Your task to perform on an android device: search for starred emails in the gmail app Image 0: 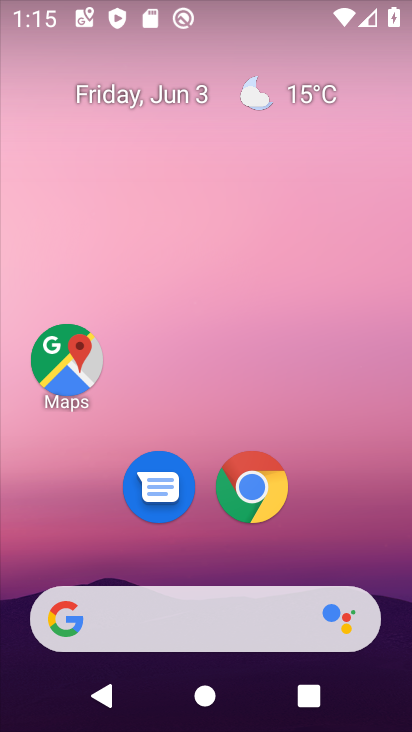
Step 0: press home button
Your task to perform on an android device: search for starred emails in the gmail app Image 1: 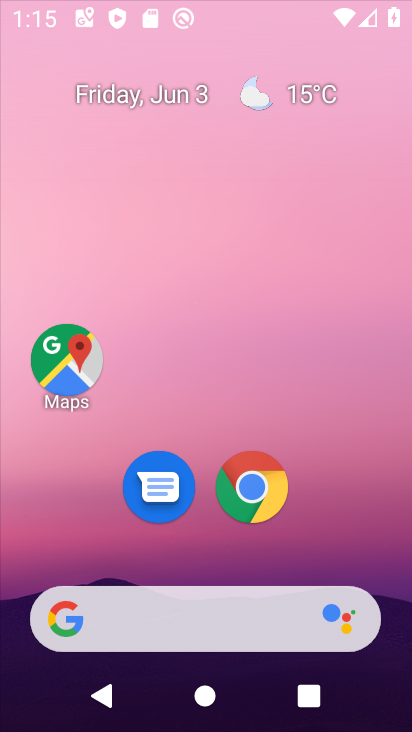
Step 1: click (203, 561)
Your task to perform on an android device: search for starred emails in the gmail app Image 2: 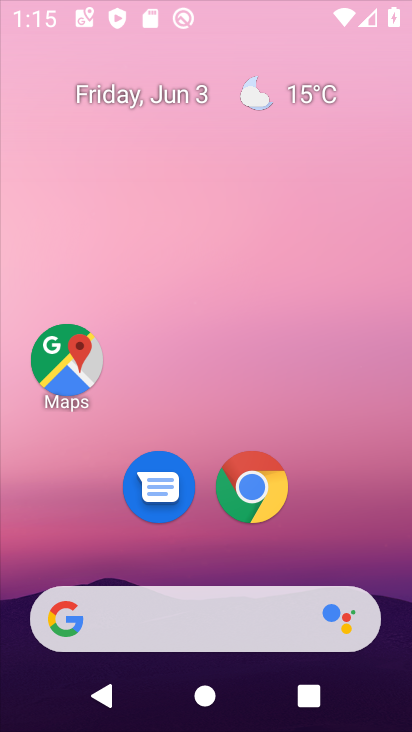
Step 2: click (202, 433)
Your task to perform on an android device: search for starred emails in the gmail app Image 3: 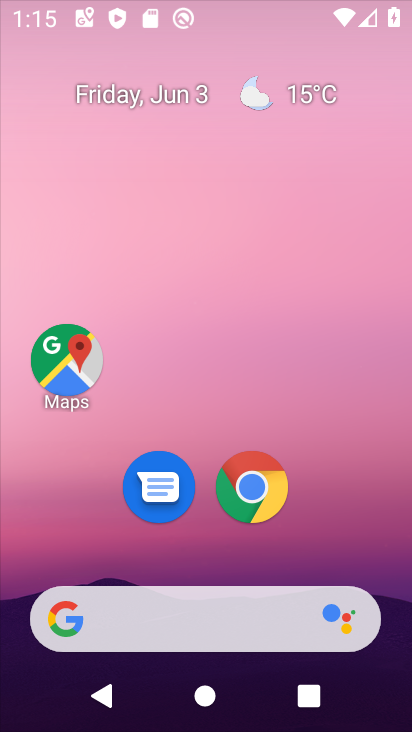
Step 3: drag from (202, 378) to (215, 130)
Your task to perform on an android device: search for starred emails in the gmail app Image 4: 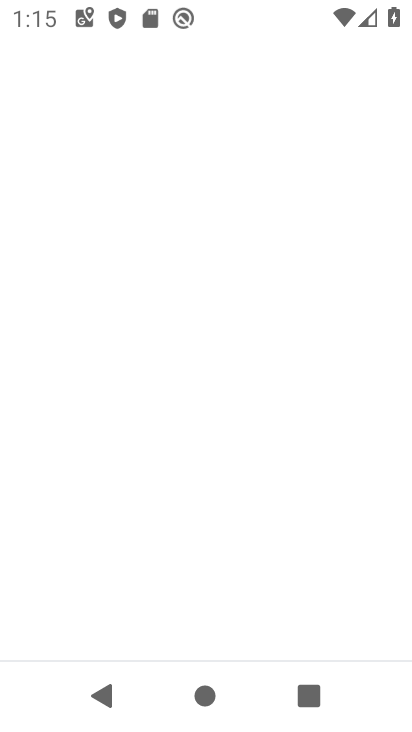
Step 4: press home button
Your task to perform on an android device: search for starred emails in the gmail app Image 5: 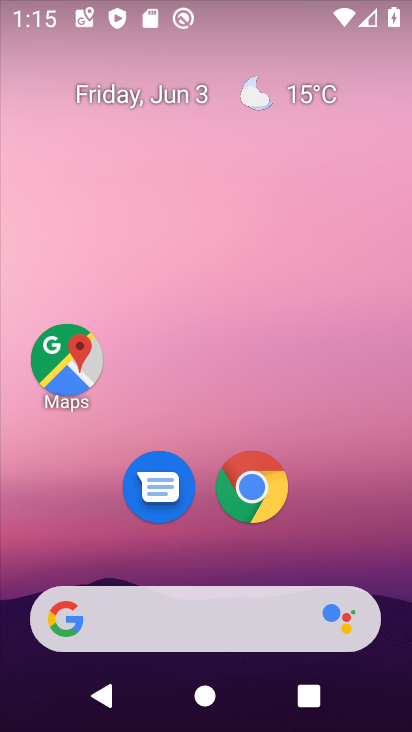
Step 5: drag from (315, 561) to (346, 79)
Your task to perform on an android device: search for starred emails in the gmail app Image 6: 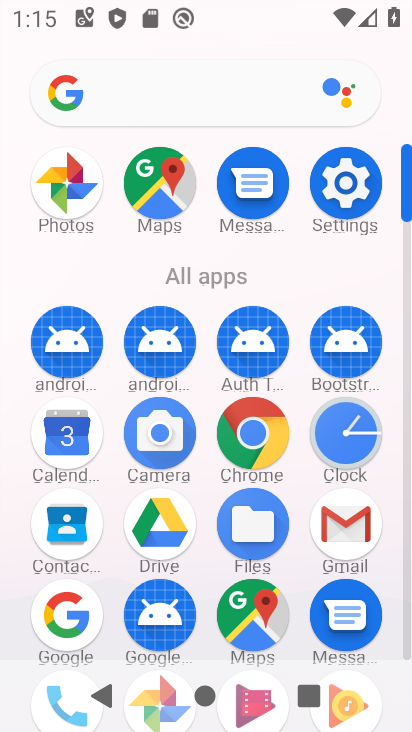
Step 6: click (342, 512)
Your task to perform on an android device: search for starred emails in the gmail app Image 7: 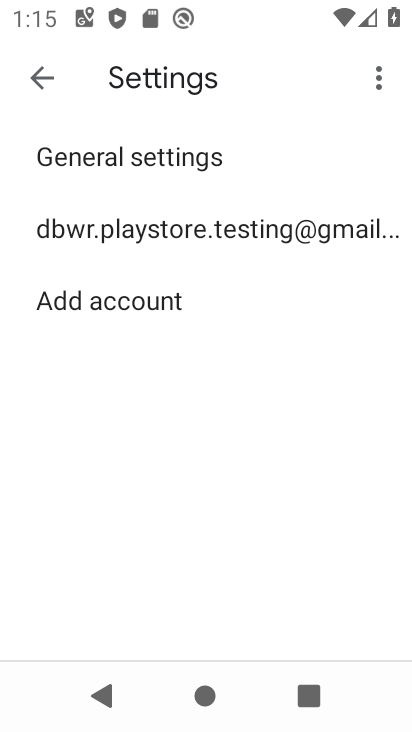
Step 7: click (47, 80)
Your task to perform on an android device: search for starred emails in the gmail app Image 8: 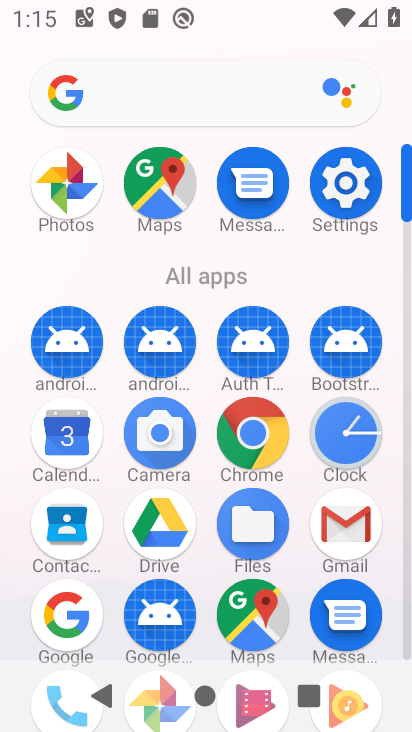
Step 8: click (336, 518)
Your task to perform on an android device: search for starred emails in the gmail app Image 9: 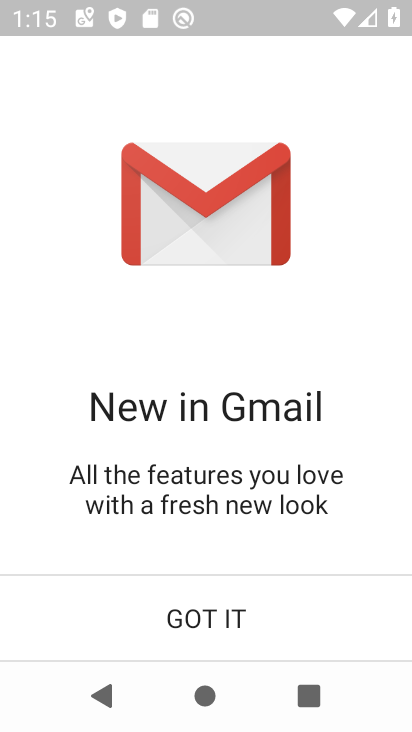
Step 9: click (220, 629)
Your task to perform on an android device: search for starred emails in the gmail app Image 10: 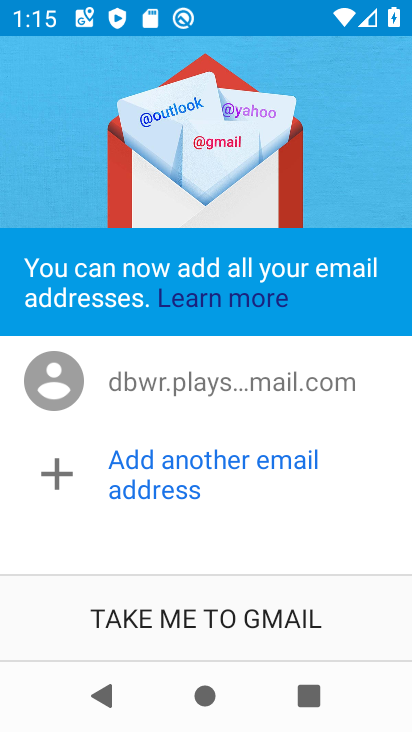
Step 10: click (203, 630)
Your task to perform on an android device: search for starred emails in the gmail app Image 11: 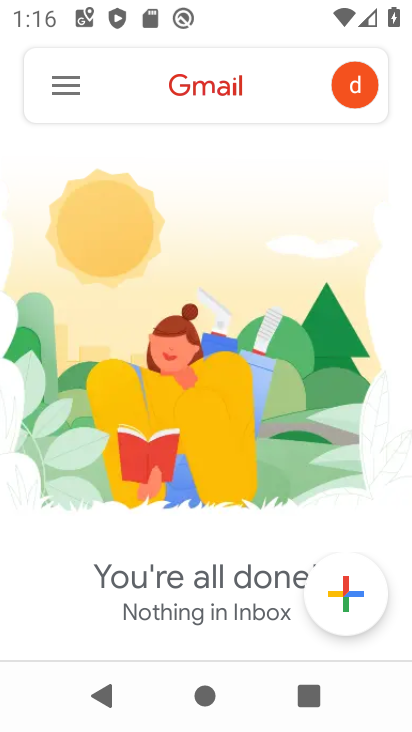
Step 11: click (71, 85)
Your task to perform on an android device: search for starred emails in the gmail app Image 12: 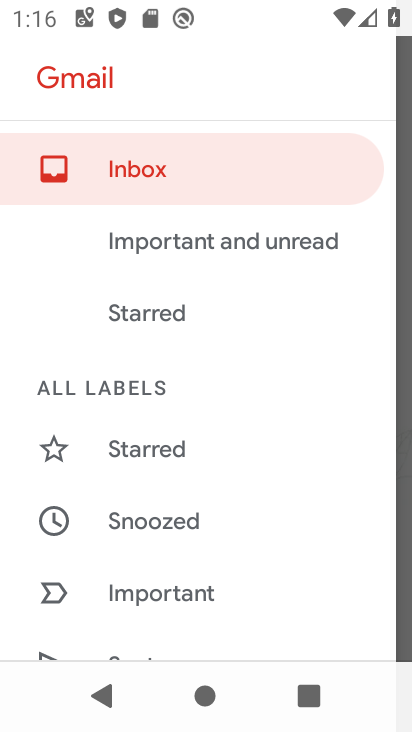
Step 12: click (199, 310)
Your task to perform on an android device: search for starred emails in the gmail app Image 13: 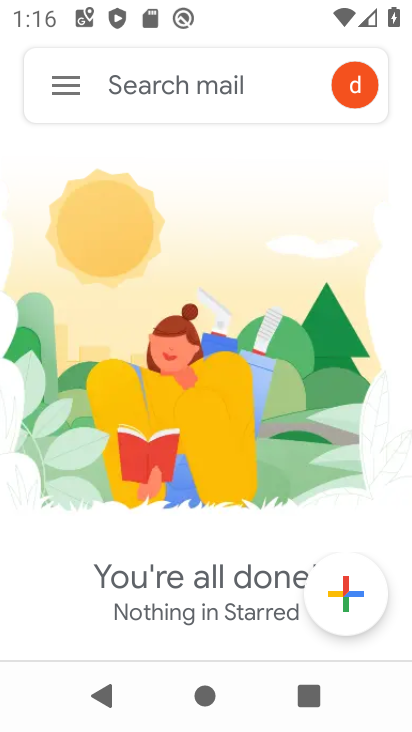
Step 13: task complete